Your task to perform on an android device: Open the phone app and click the voicemail tab. Image 0: 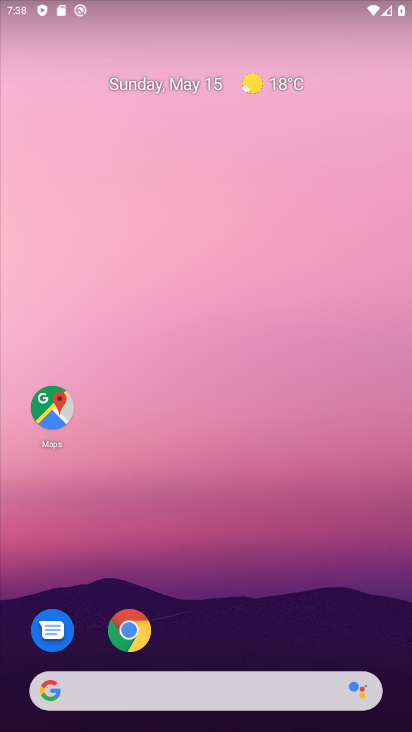
Step 0: drag from (183, 614) to (209, 84)
Your task to perform on an android device: Open the phone app and click the voicemail tab. Image 1: 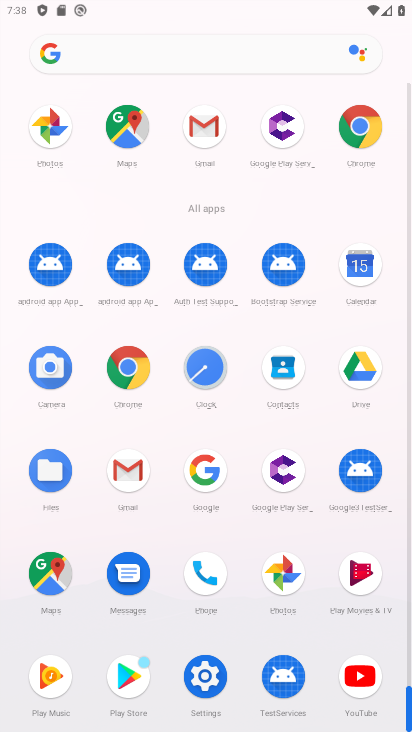
Step 1: click (189, 580)
Your task to perform on an android device: Open the phone app and click the voicemail tab. Image 2: 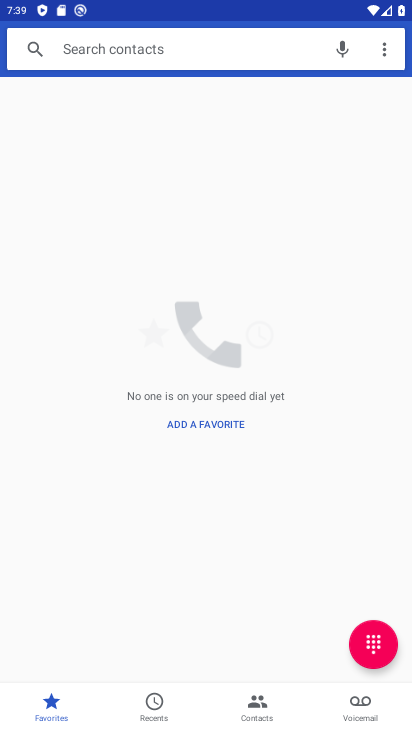
Step 2: click (338, 703)
Your task to perform on an android device: Open the phone app and click the voicemail tab. Image 3: 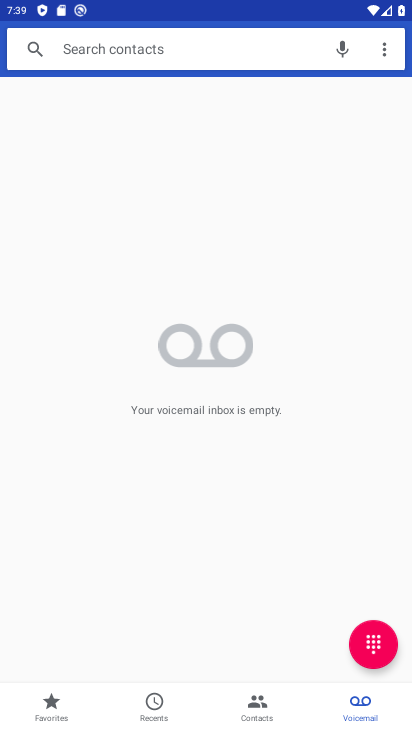
Step 3: task complete